Your task to perform on an android device: Open the calendar app, open the side menu, and click the "Day" option Image 0: 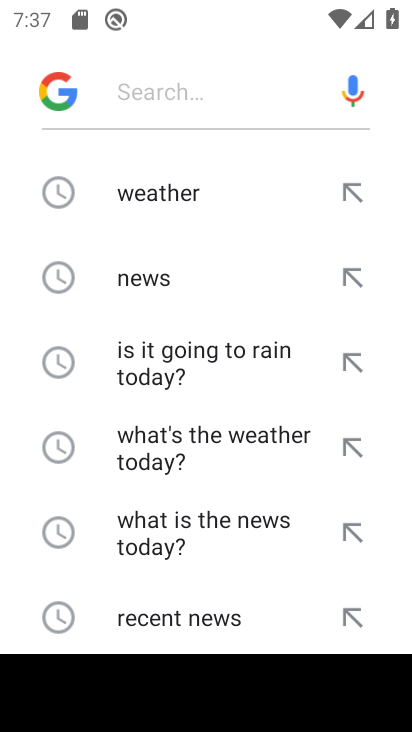
Step 0: press home button
Your task to perform on an android device: Open the calendar app, open the side menu, and click the "Day" option Image 1: 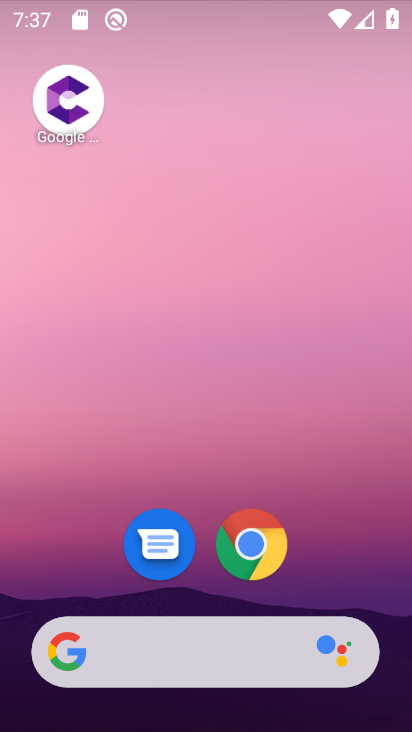
Step 1: drag from (205, 575) to (292, 174)
Your task to perform on an android device: Open the calendar app, open the side menu, and click the "Day" option Image 2: 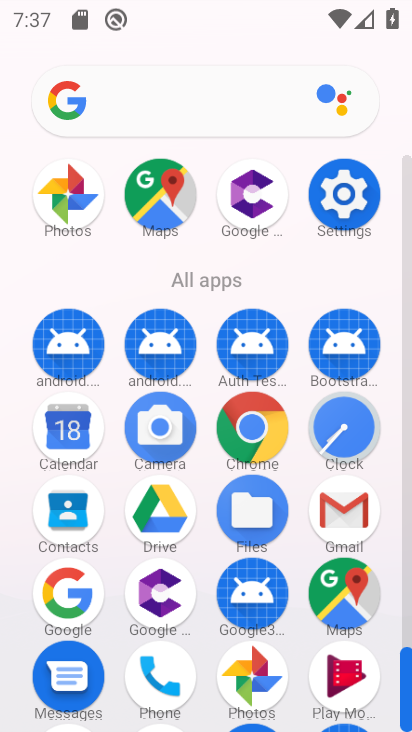
Step 2: click (70, 425)
Your task to perform on an android device: Open the calendar app, open the side menu, and click the "Day" option Image 3: 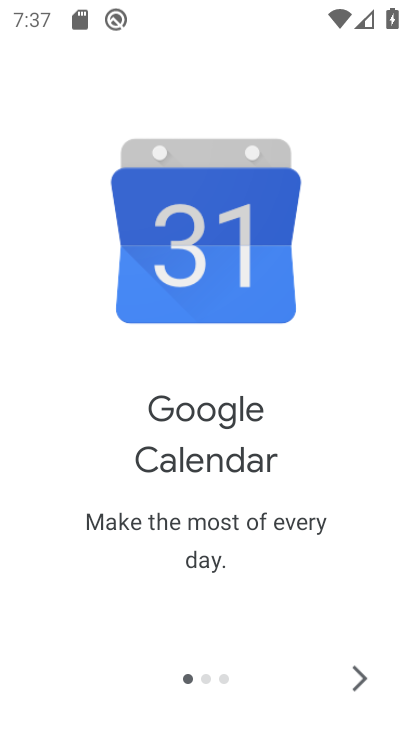
Step 3: click (349, 676)
Your task to perform on an android device: Open the calendar app, open the side menu, and click the "Day" option Image 4: 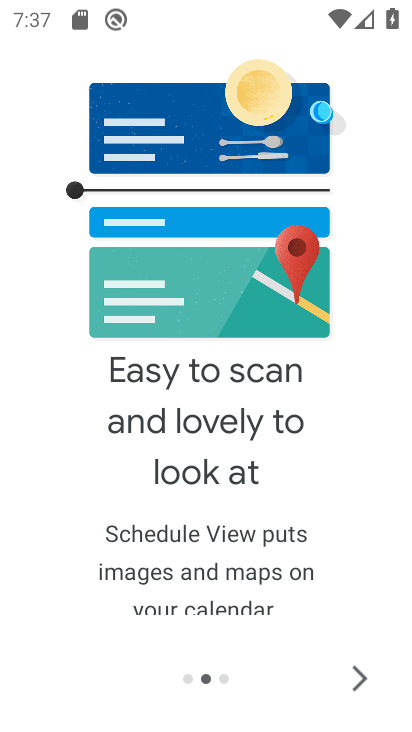
Step 4: click (349, 676)
Your task to perform on an android device: Open the calendar app, open the side menu, and click the "Day" option Image 5: 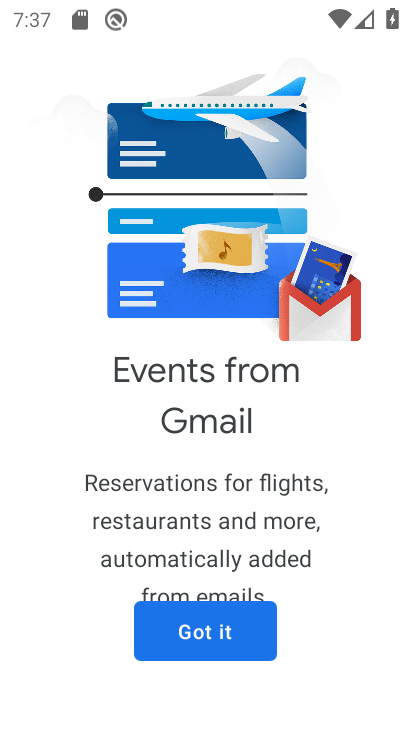
Step 5: click (350, 674)
Your task to perform on an android device: Open the calendar app, open the side menu, and click the "Day" option Image 6: 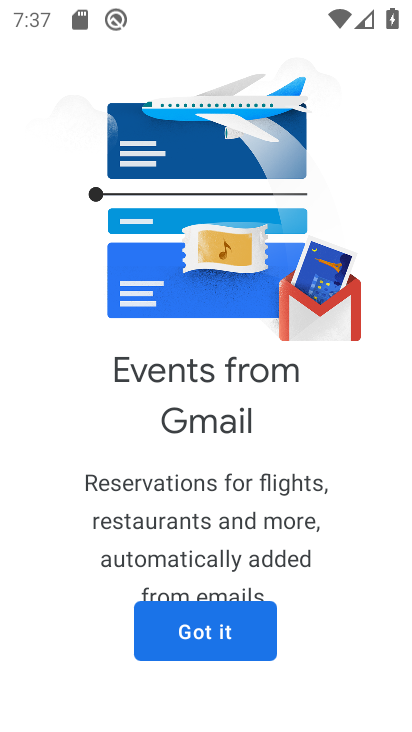
Step 6: click (230, 613)
Your task to perform on an android device: Open the calendar app, open the side menu, and click the "Day" option Image 7: 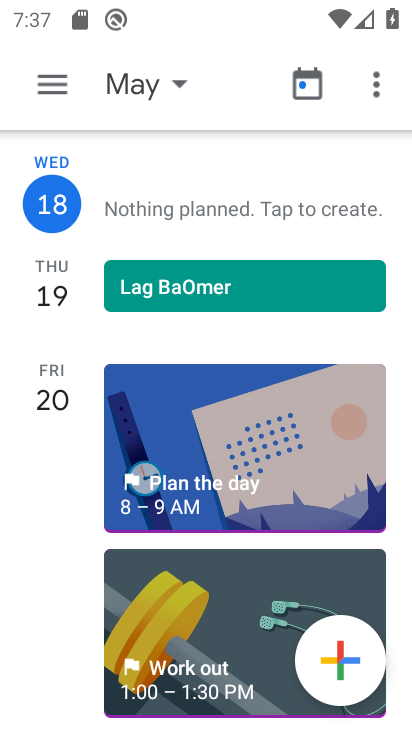
Step 7: click (61, 76)
Your task to perform on an android device: Open the calendar app, open the side menu, and click the "Day" option Image 8: 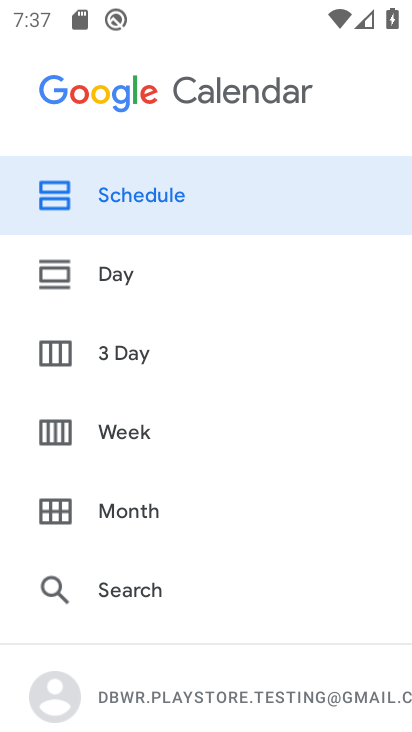
Step 8: click (116, 270)
Your task to perform on an android device: Open the calendar app, open the side menu, and click the "Day" option Image 9: 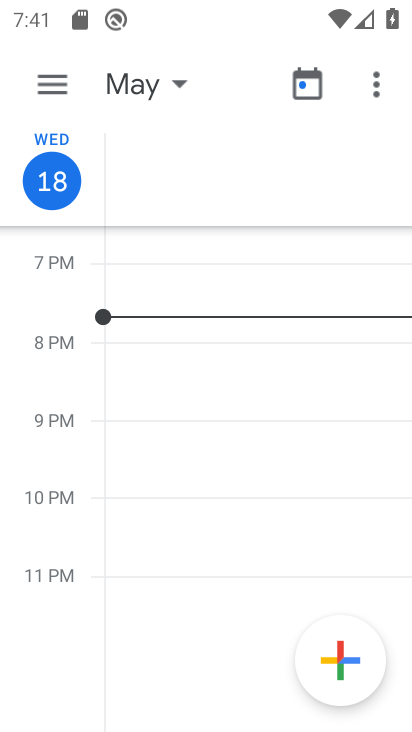
Step 9: task complete